Your task to perform on an android device: find snoozed emails in the gmail app Image 0: 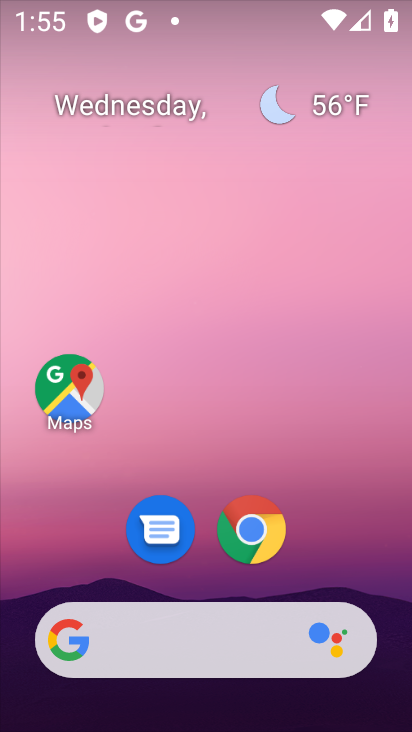
Step 0: drag from (361, 526) to (357, 194)
Your task to perform on an android device: find snoozed emails in the gmail app Image 1: 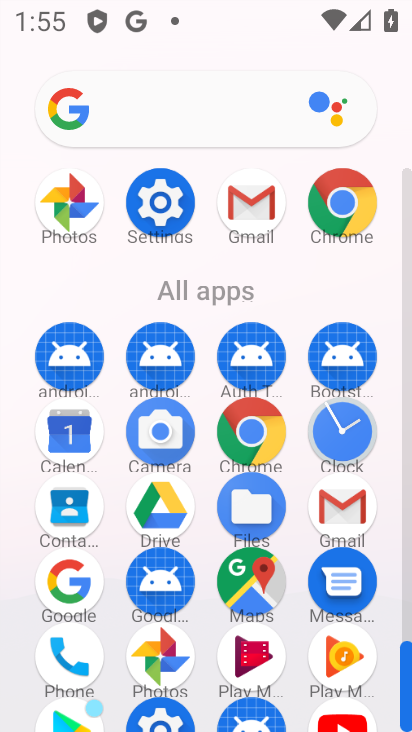
Step 1: click (259, 225)
Your task to perform on an android device: find snoozed emails in the gmail app Image 2: 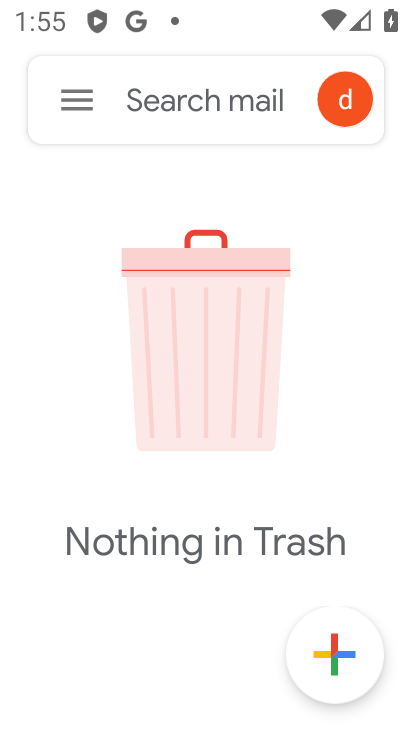
Step 2: click (88, 115)
Your task to perform on an android device: find snoozed emails in the gmail app Image 3: 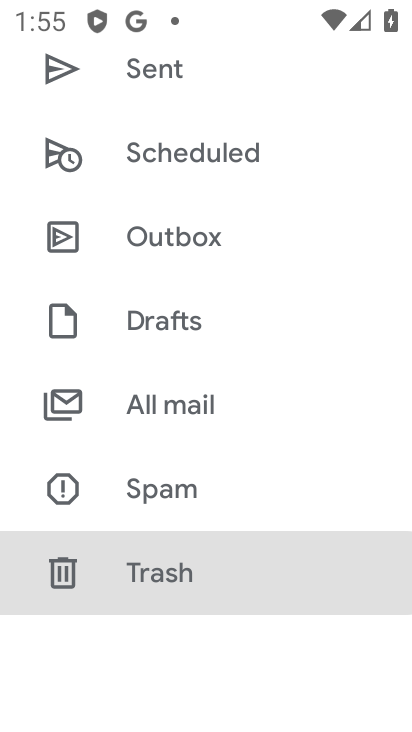
Step 3: drag from (209, 202) to (251, 541)
Your task to perform on an android device: find snoozed emails in the gmail app Image 4: 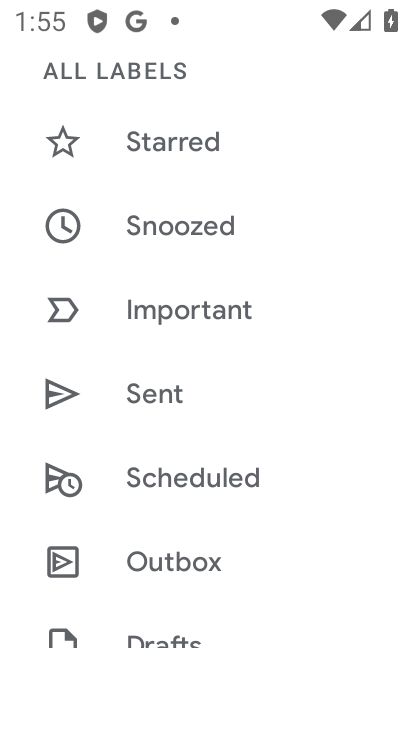
Step 4: click (213, 222)
Your task to perform on an android device: find snoozed emails in the gmail app Image 5: 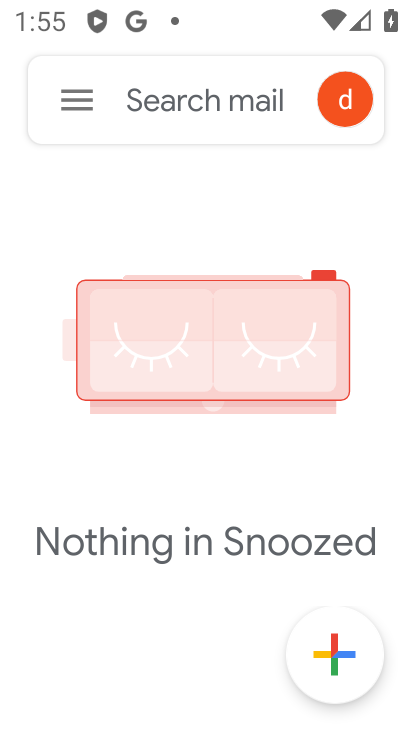
Step 5: task complete